Your task to perform on an android device: change the clock display to analog Image 0: 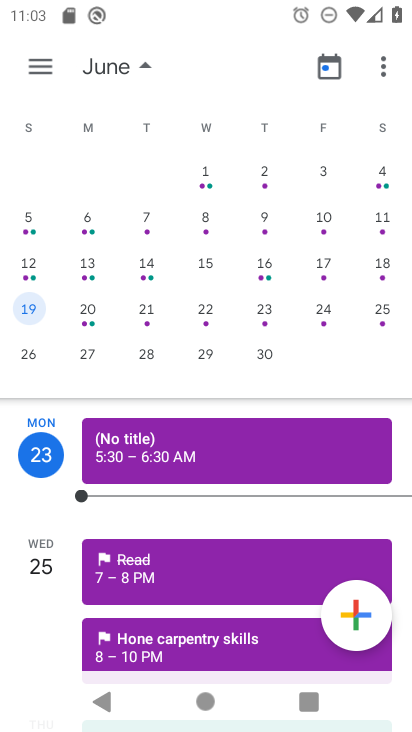
Step 0: press home button
Your task to perform on an android device: change the clock display to analog Image 1: 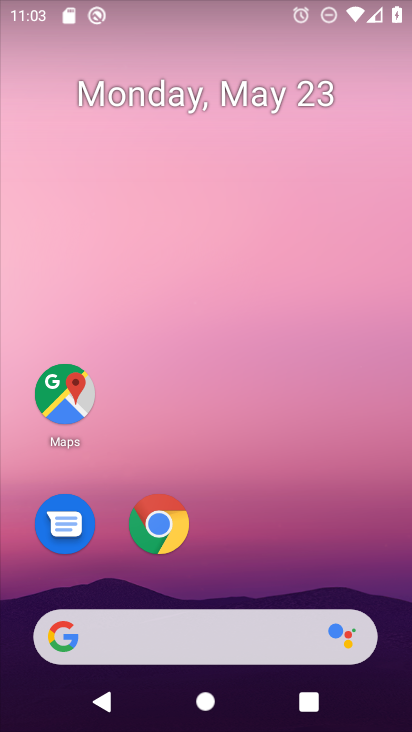
Step 1: drag from (230, 573) to (237, 176)
Your task to perform on an android device: change the clock display to analog Image 2: 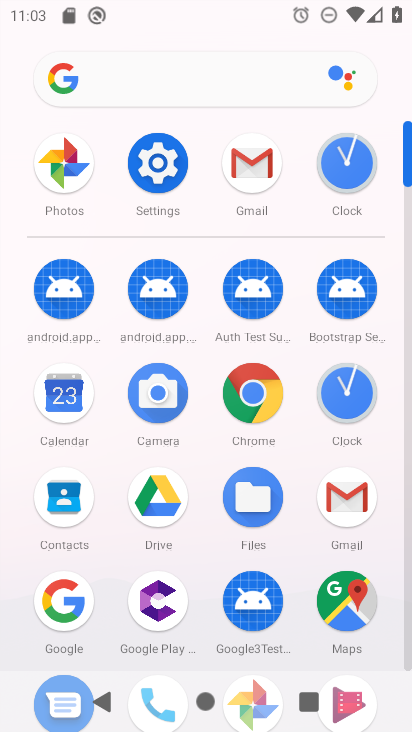
Step 2: click (353, 185)
Your task to perform on an android device: change the clock display to analog Image 3: 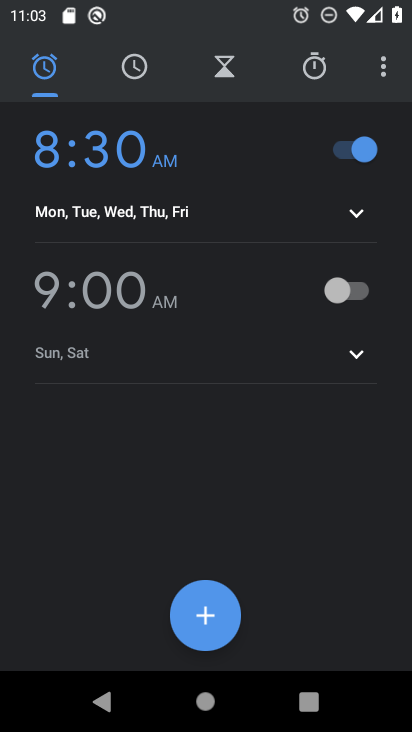
Step 3: click (376, 72)
Your task to perform on an android device: change the clock display to analog Image 4: 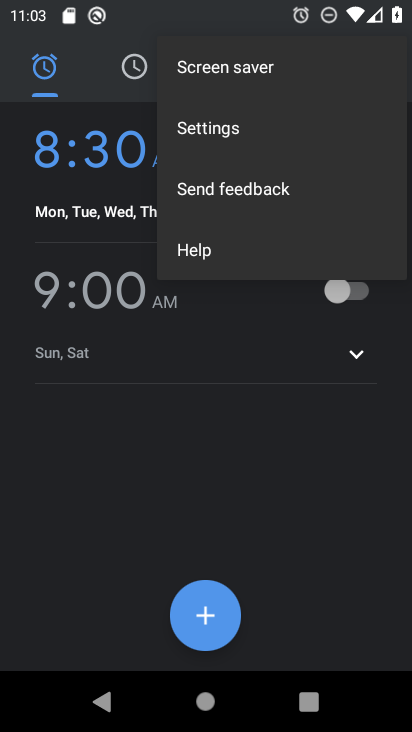
Step 4: click (327, 129)
Your task to perform on an android device: change the clock display to analog Image 5: 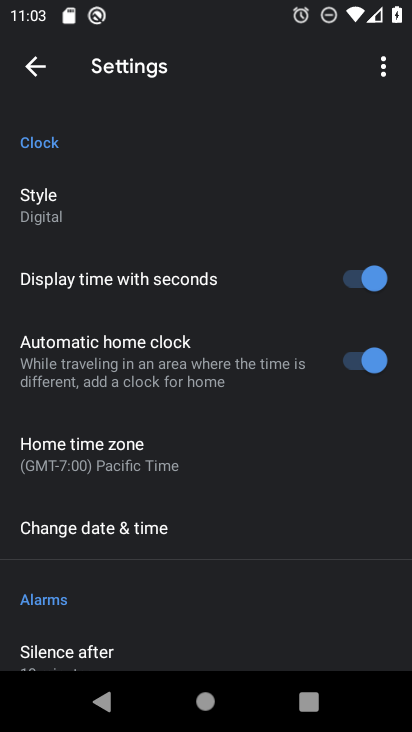
Step 5: click (86, 208)
Your task to perform on an android device: change the clock display to analog Image 6: 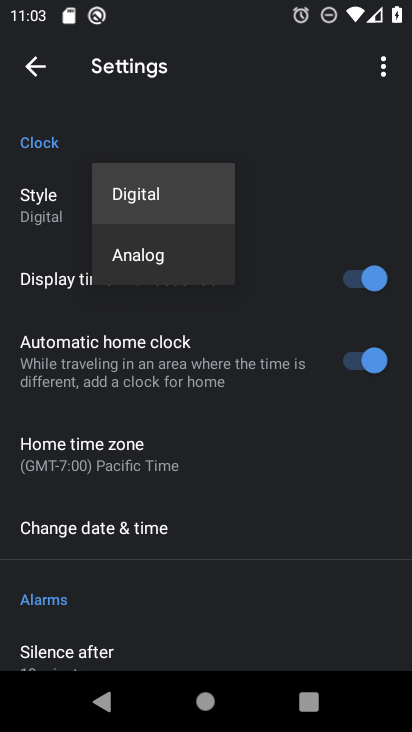
Step 6: click (126, 245)
Your task to perform on an android device: change the clock display to analog Image 7: 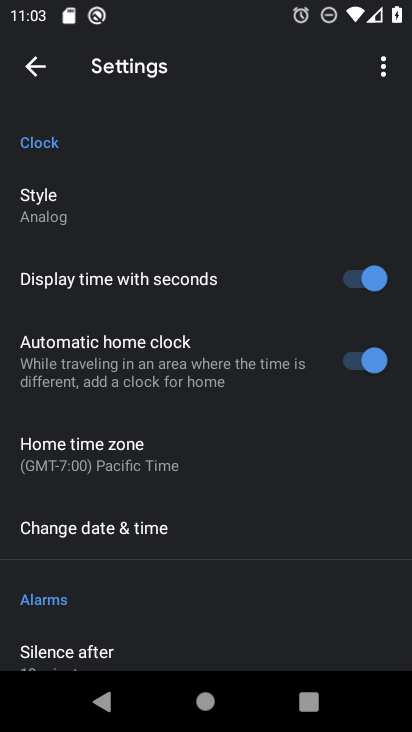
Step 7: task complete